Your task to perform on an android device: Open calendar and show me the third week of next month Image 0: 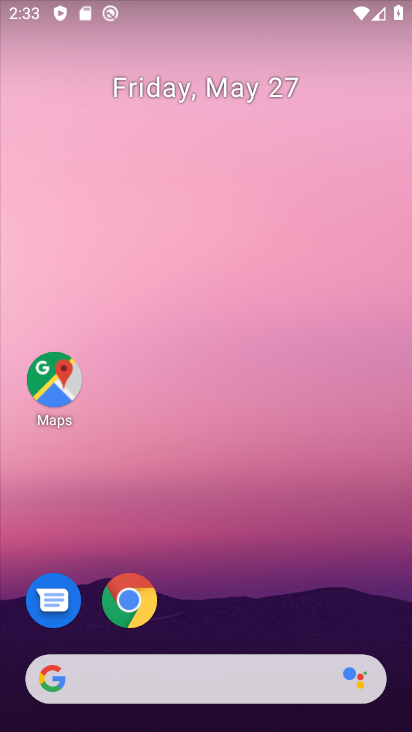
Step 0: drag from (375, 450) to (333, 179)
Your task to perform on an android device: Open calendar and show me the third week of next month Image 1: 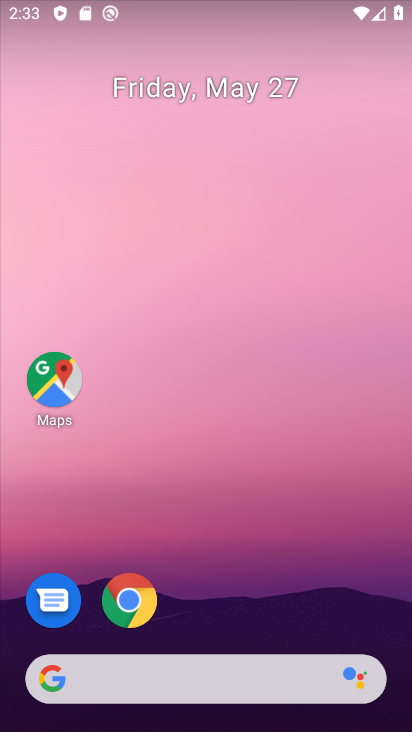
Step 1: drag from (286, 607) to (181, 20)
Your task to perform on an android device: Open calendar and show me the third week of next month Image 2: 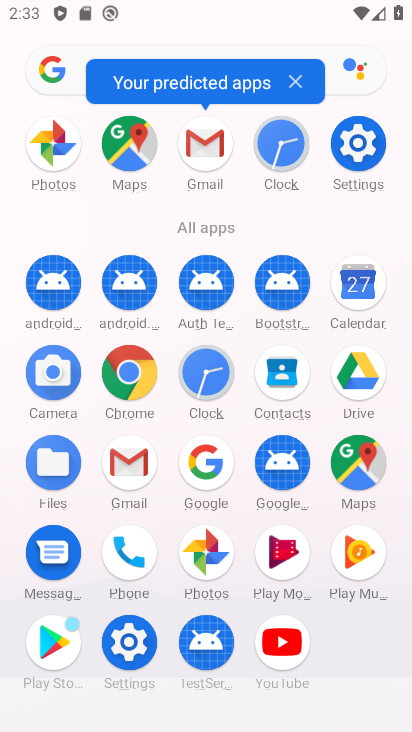
Step 2: click (372, 303)
Your task to perform on an android device: Open calendar and show me the third week of next month Image 3: 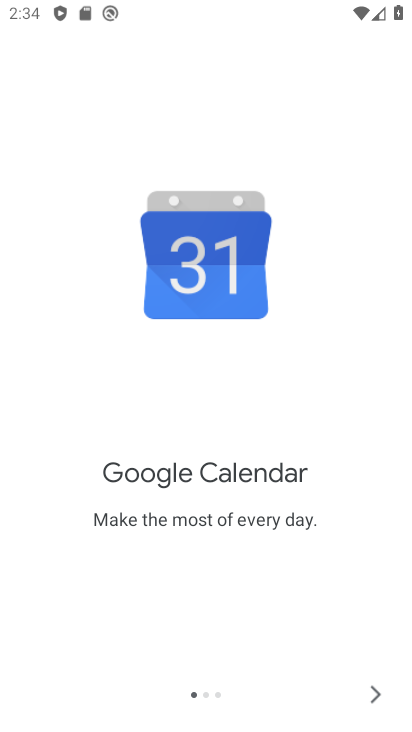
Step 3: click (381, 691)
Your task to perform on an android device: Open calendar and show me the third week of next month Image 4: 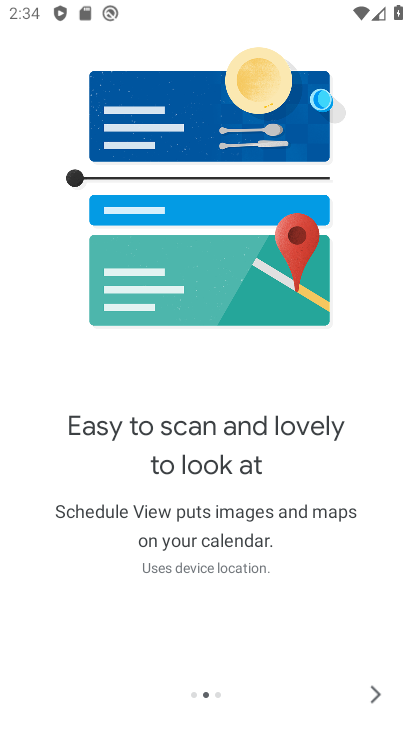
Step 4: click (381, 691)
Your task to perform on an android device: Open calendar and show me the third week of next month Image 5: 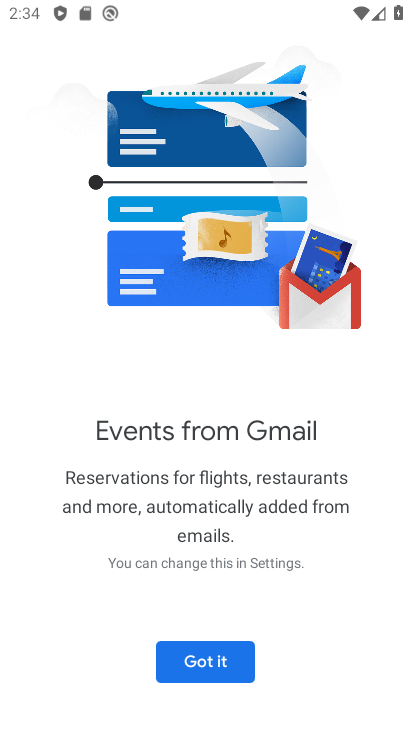
Step 5: click (186, 683)
Your task to perform on an android device: Open calendar and show me the third week of next month Image 6: 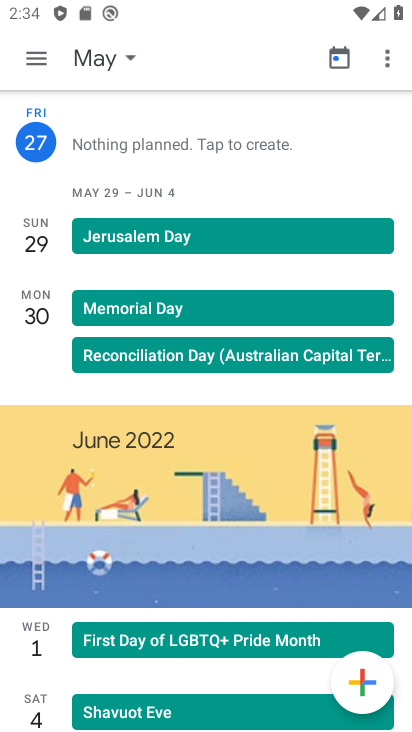
Step 6: click (29, 55)
Your task to perform on an android device: Open calendar and show me the third week of next month Image 7: 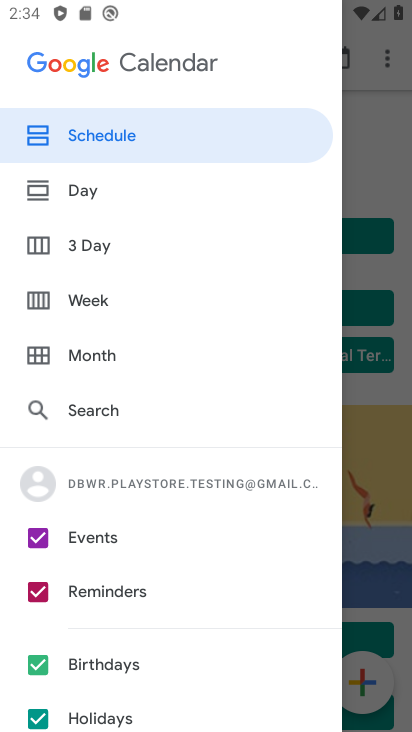
Step 7: drag from (234, 601) to (209, 302)
Your task to perform on an android device: Open calendar and show me the third week of next month Image 8: 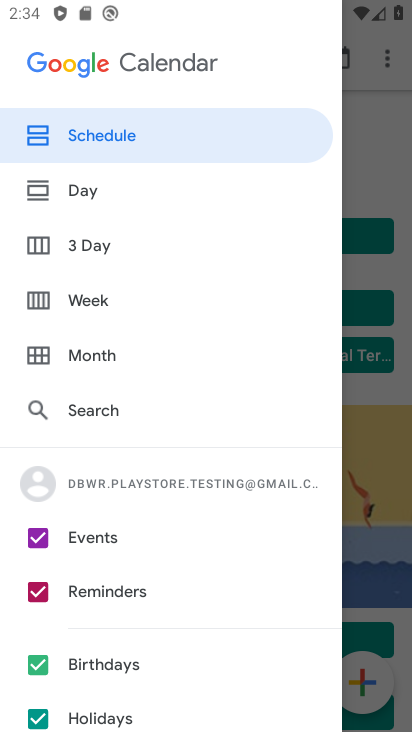
Step 8: click (100, 301)
Your task to perform on an android device: Open calendar and show me the third week of next month Image 9: 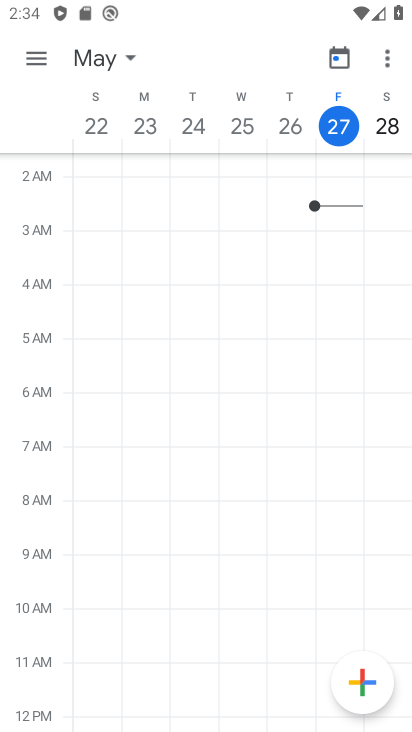
Step 9: task complete